Your task to perform on an android device: Open accessibility settings Image 0: 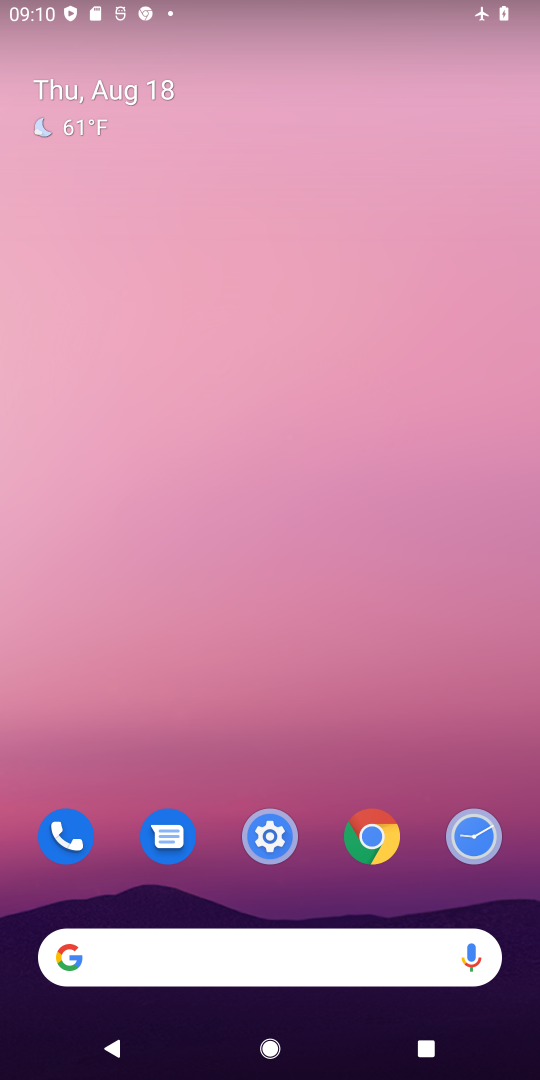
Step 0: drag from (244, 775) to (337, 161)
Your task to perform on an android device: Open accessibility settings Image 1: 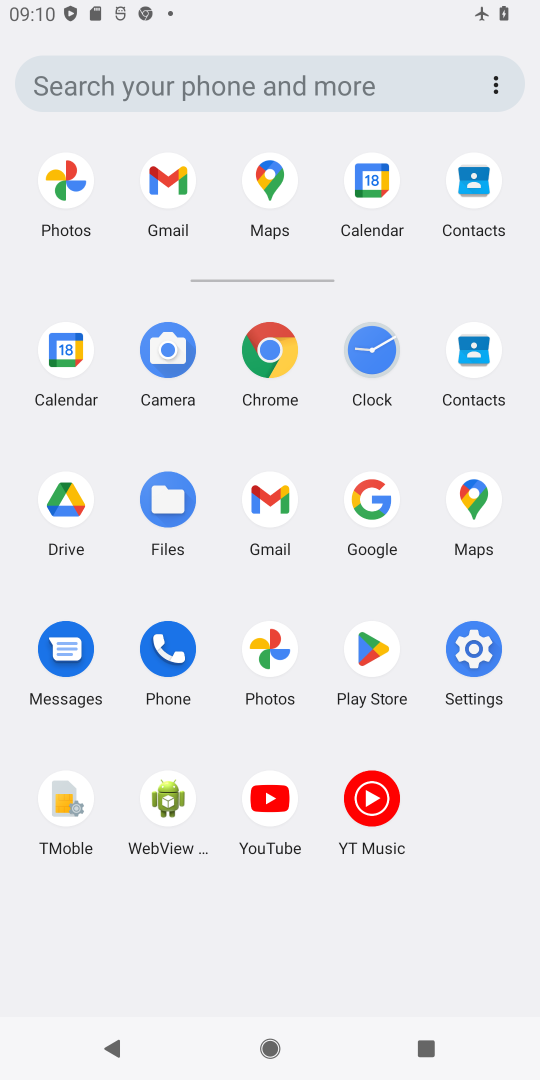
Step 1: click (479, 646)
Your task to perform on an android device: Open accessibility settings Image 2: 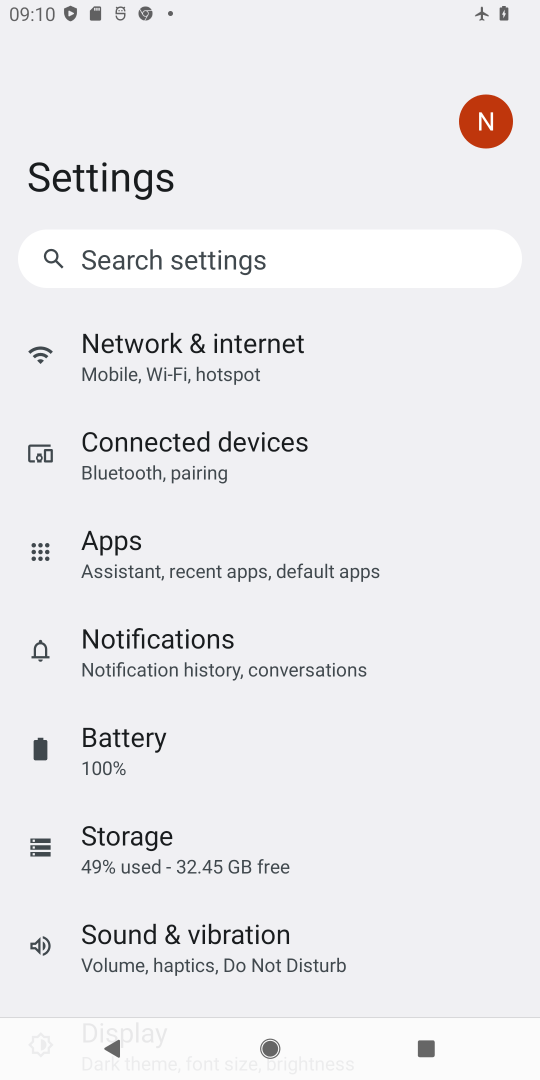
Step 2: drag from (259, 830) to (308, 200)
Your task to perform on an android device: Open accessibility settings Image 3: 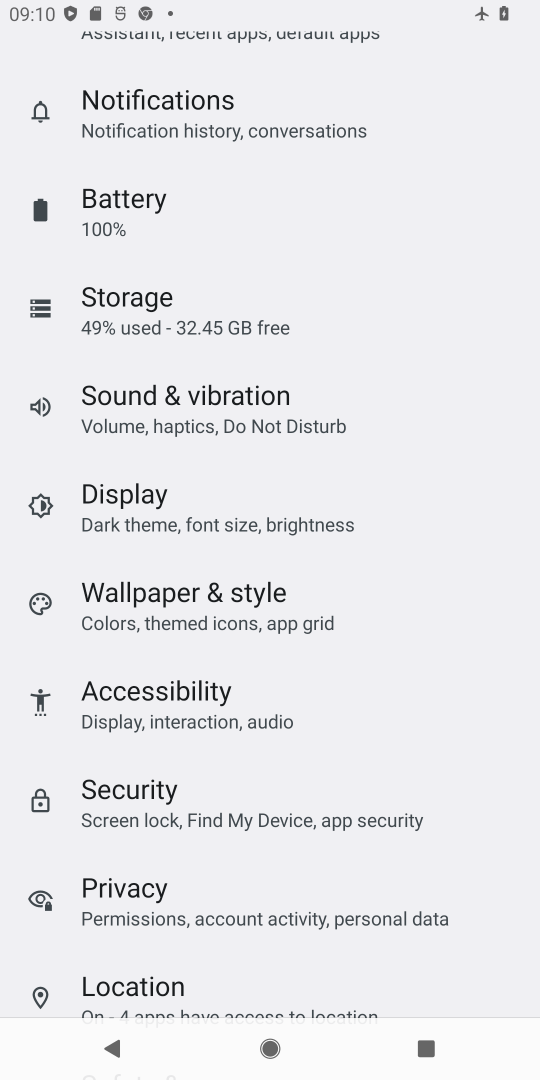
Step 3: drag from (292, 925) to (377, 294)
Your task to perform on an android device: Open accessibility settings Image 4: 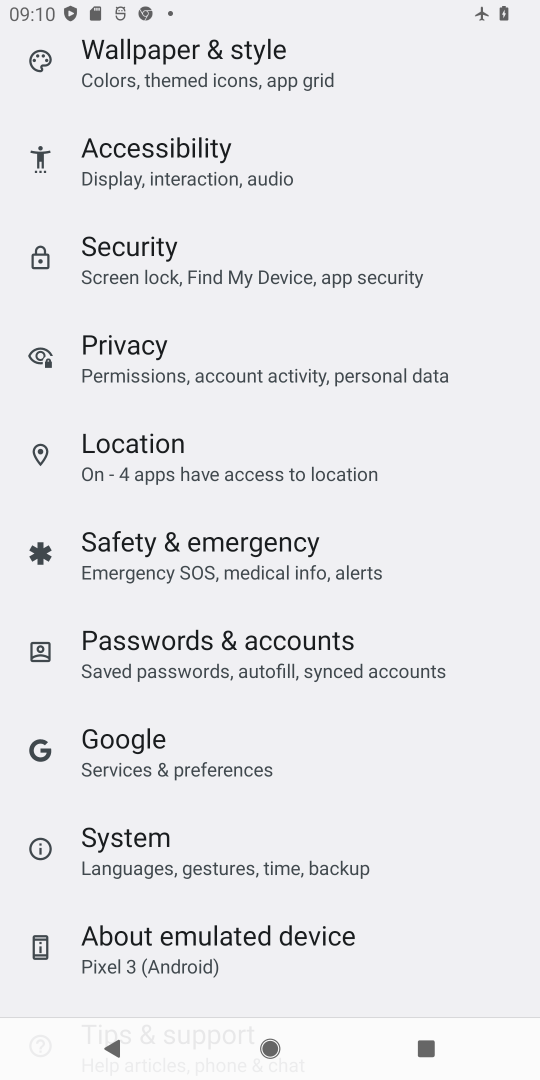
Step 4: click (163, 143)
Your task to perform on an android device: Open accessibility settings Image 5: 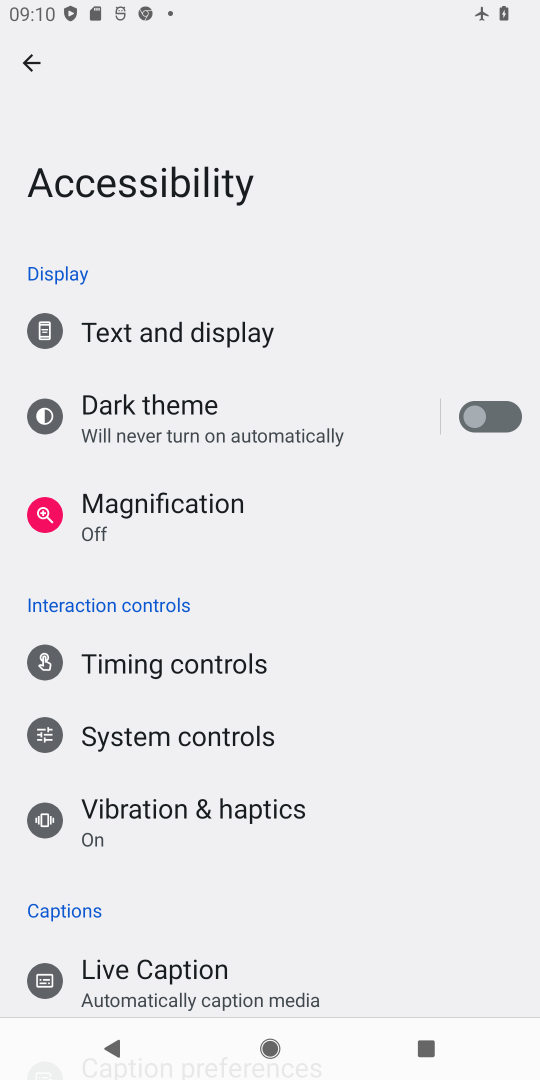
Step 5: task complete